Your task to perform on an android device: Open calendar and show me the fourth week of next month Image 0: 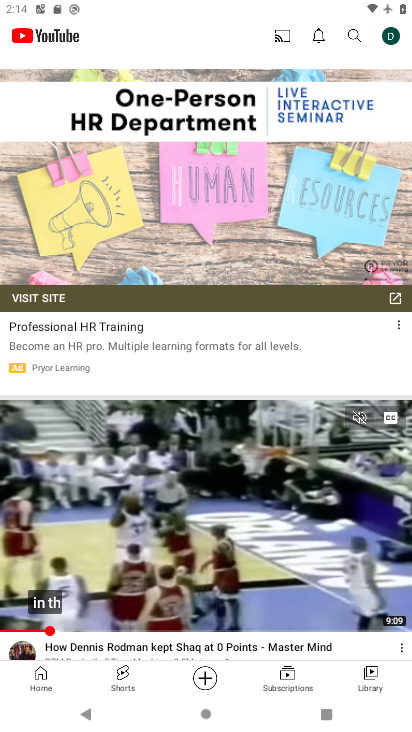
Step 0: press home button
Your task to perform on an android device: Open calendar and show me the fourth week of next month Image 1: 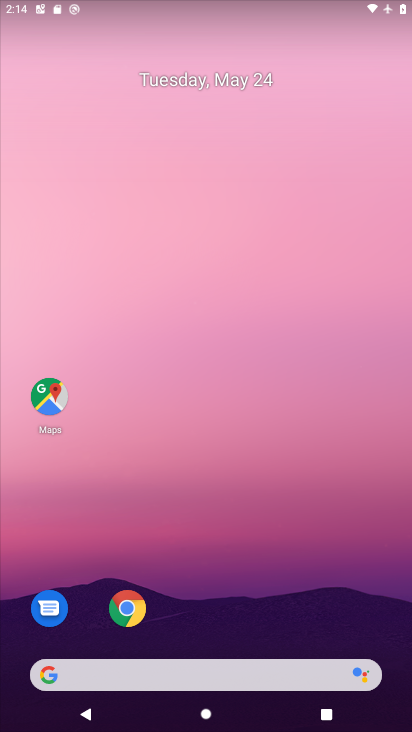
Step 1: drag from (233, 614) to (258, 30)
Your task to perform on an android device: Open calendar and show me the fourth week of next month Image 2: 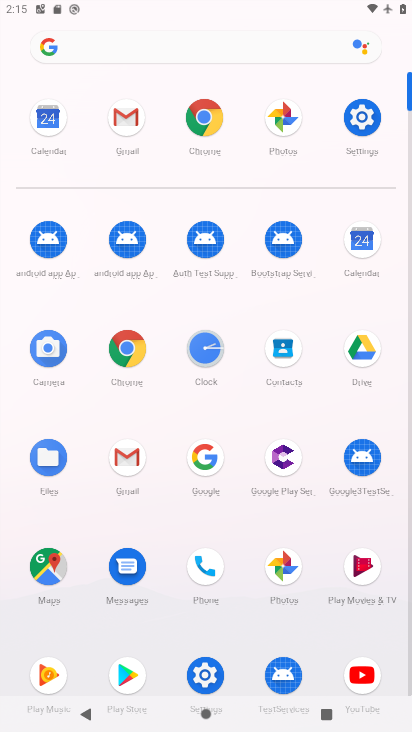
Step 2: click (39, 134)
Your task to perform on an android device: Open calendar and show me the fourth week of next month Image 3: 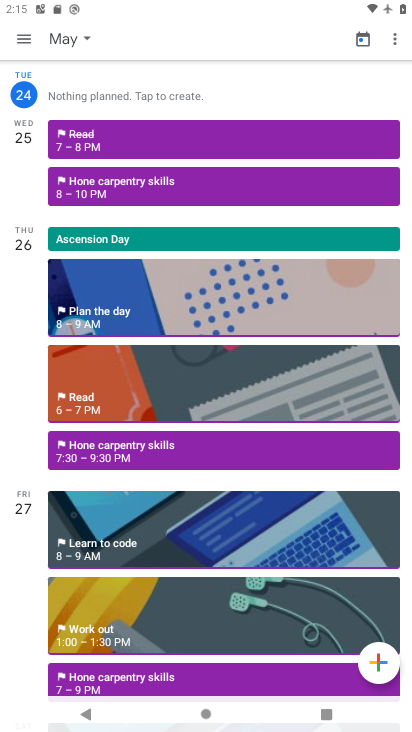
Step 3: click (73, 48)
Your task to perform on an android device: Open calendar and show me the fourth week of next month Image 4: 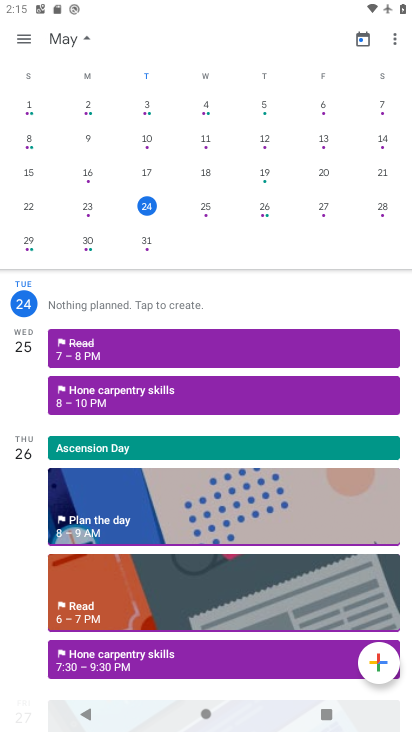
Step 4: drag from (383, 183) to (24, 200)
Your task to perform on an android device: Open calendar and show me the fourth week of next month Image 5: 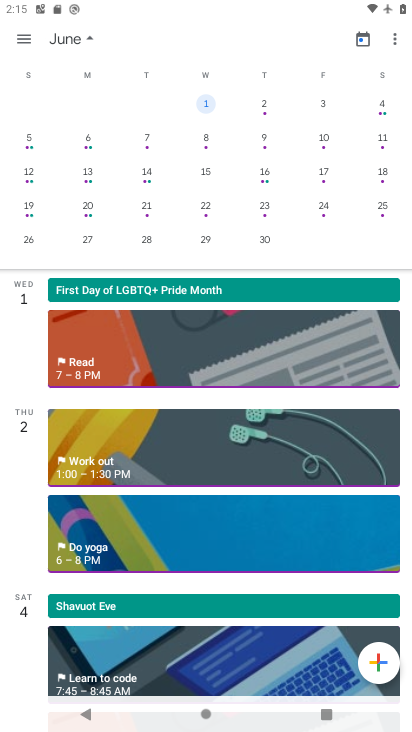
Step 5: click (130, 196)
Your task to perform on an android device: Open calendar and show me the fourth week of next month Image 6: 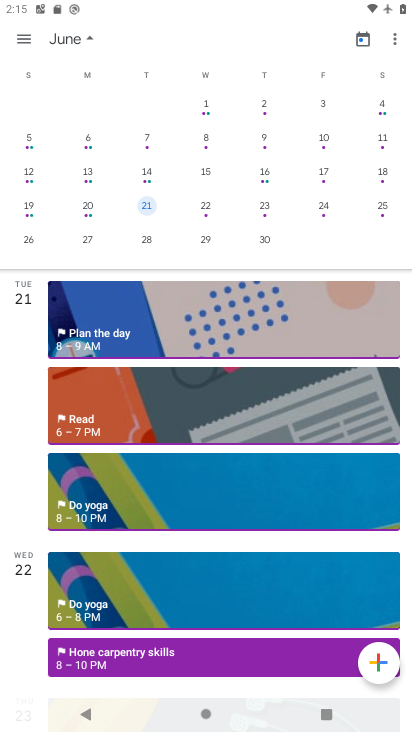
Step 6: task complete